Your task to perform on an android device: Open settings Image 0: 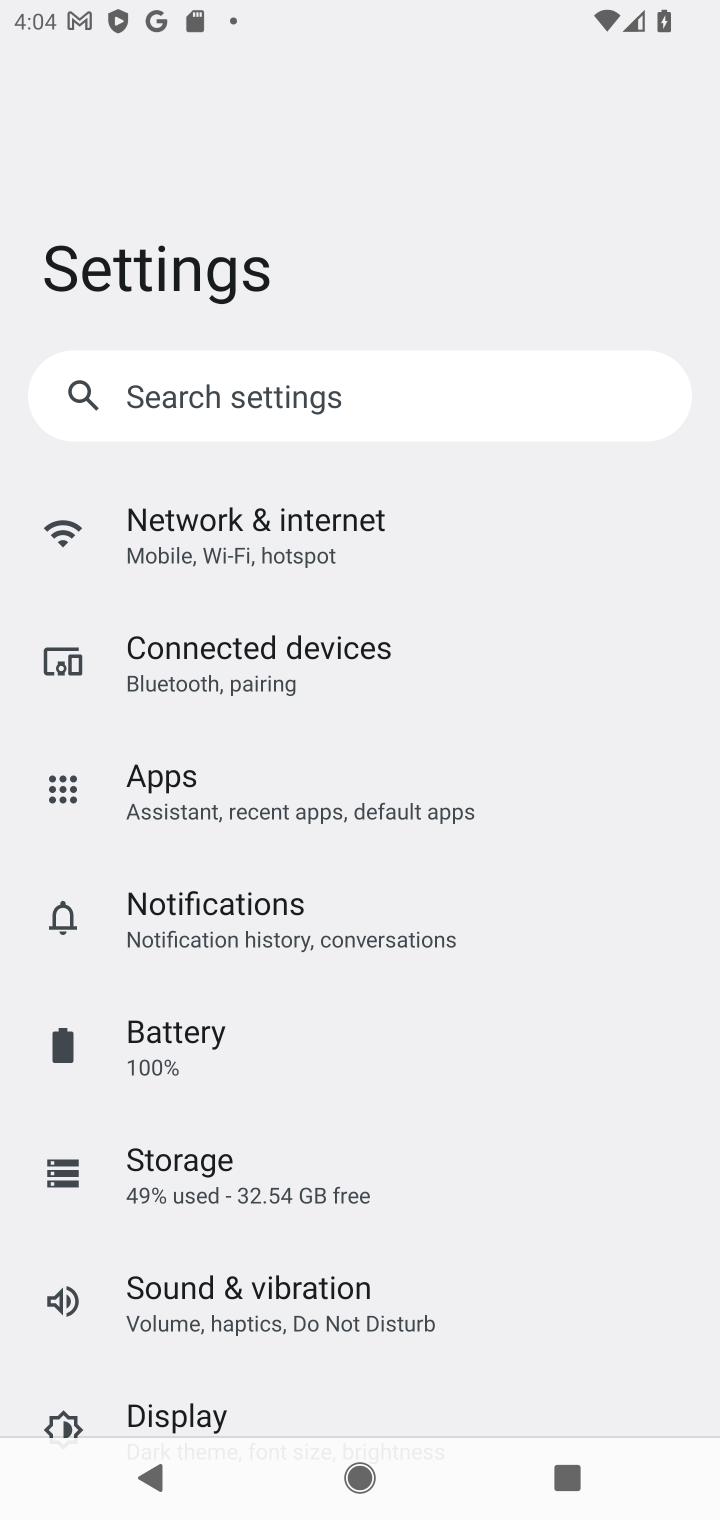
Step 0: press home button
Your task to perform on an android device: Open settings Image 1: 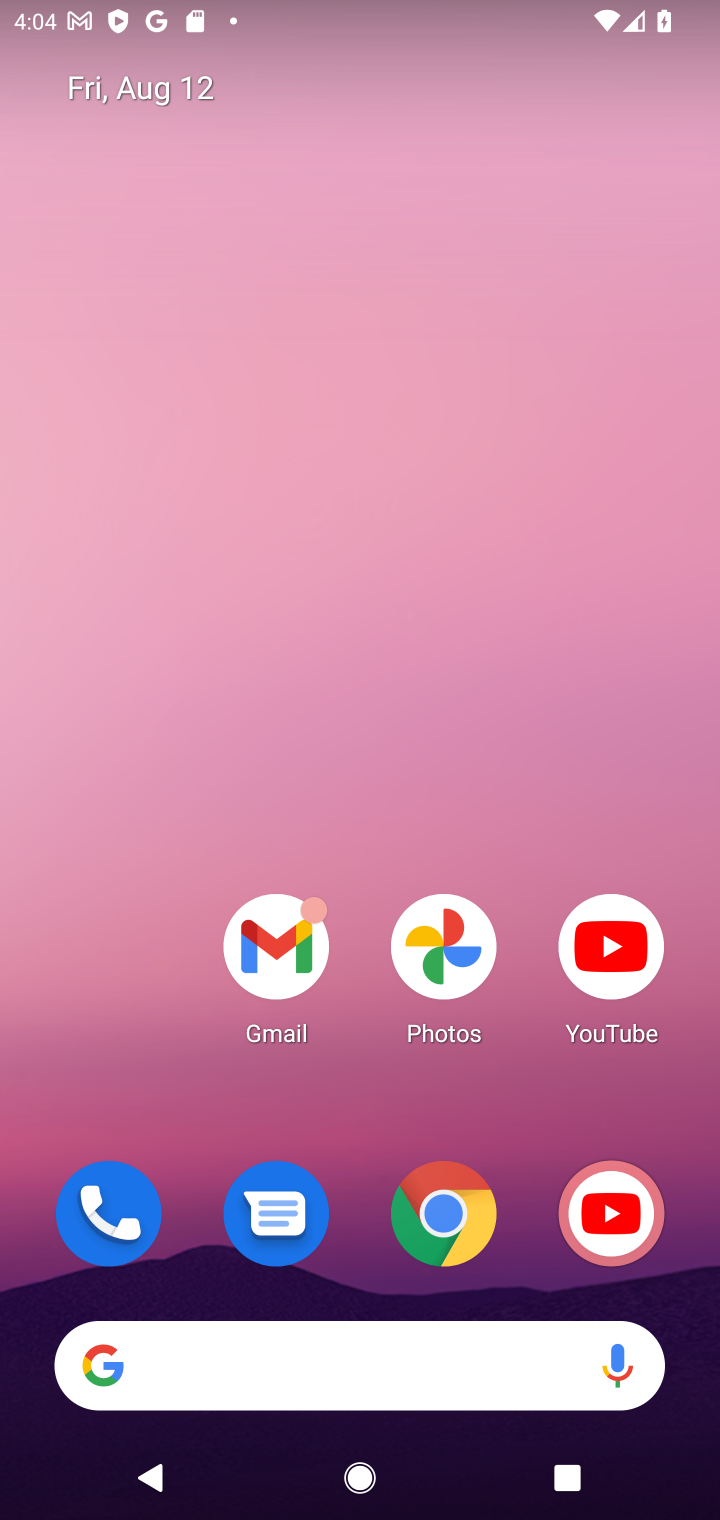
Step 1: drag from (341, 1032) to (406, 91)
Your task to perform on an android device: Open settings Image 2: 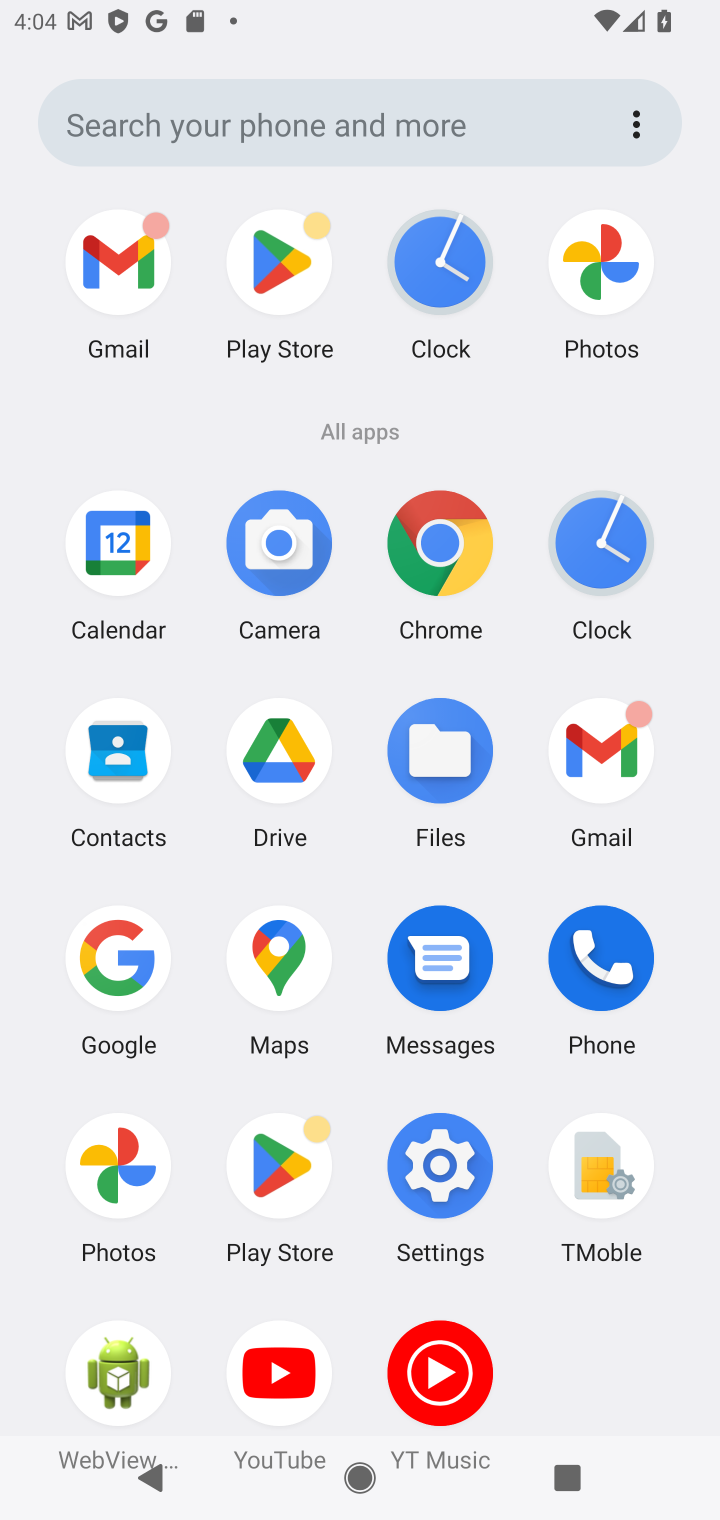
Step 2: click (439, 1163)
Your task to perform on an android device: Open settings Image 3: 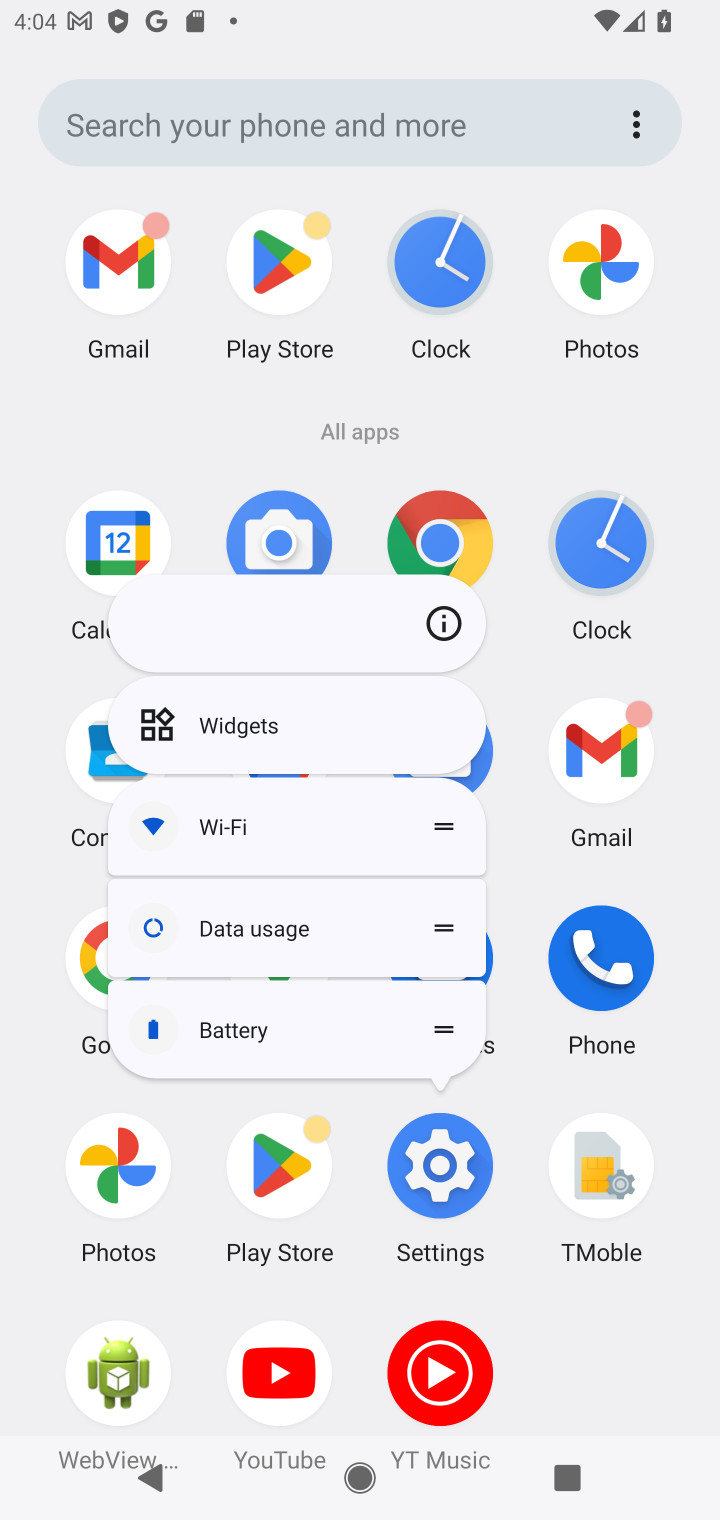
Step 3: click (439, 1163)
Your task to perform on an android device: Open settings Image 4: 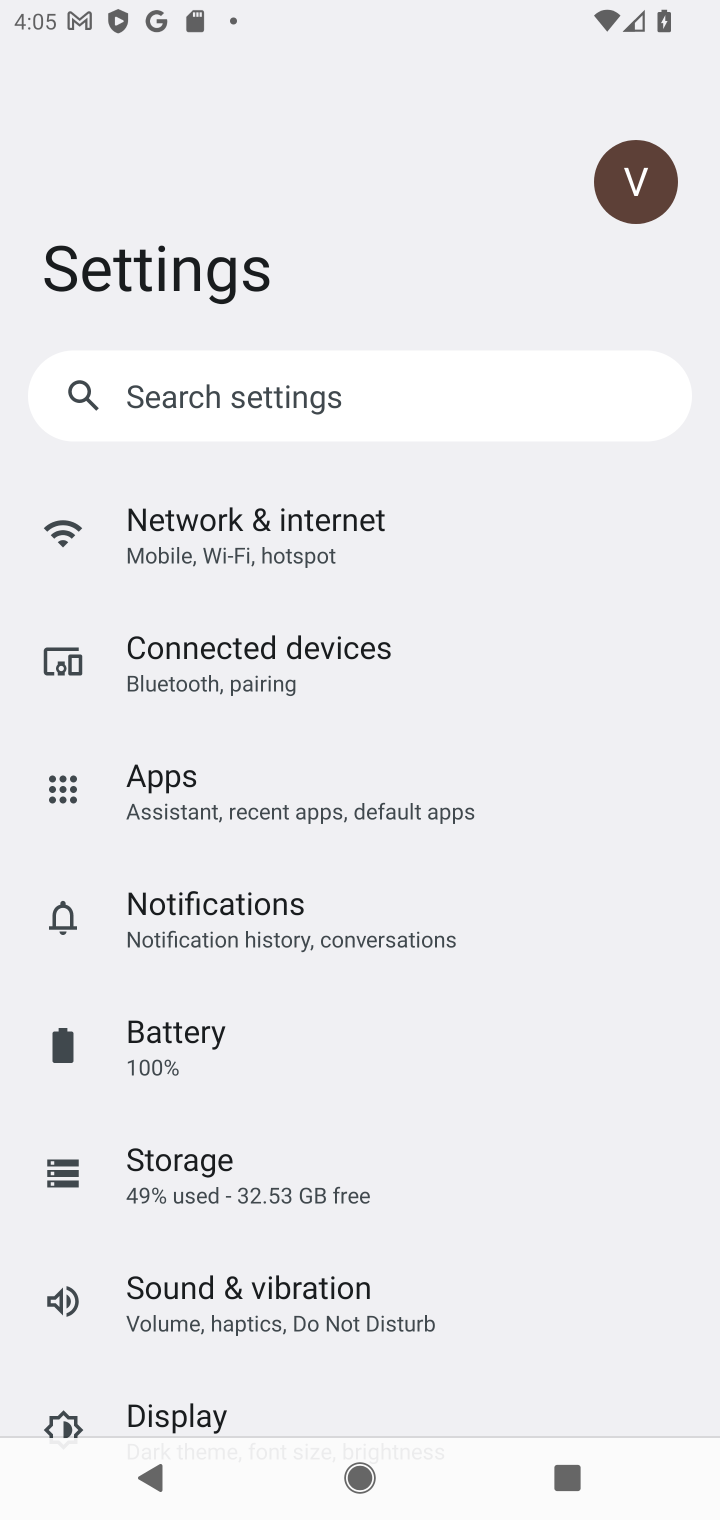
Step 4: task complete